Your task to perform on an android device: Show me the alarms in the clock app Image 0: 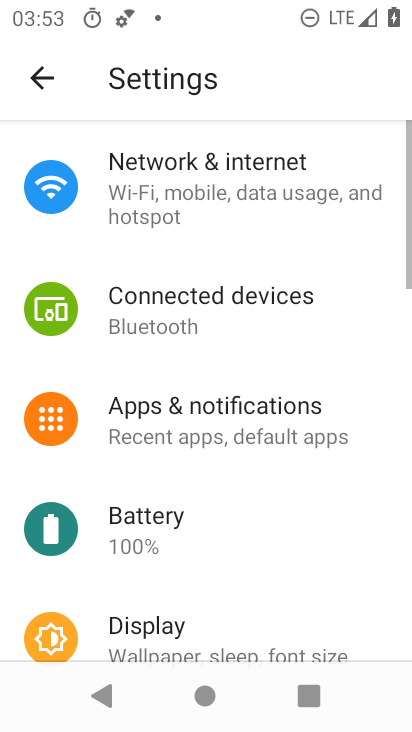
Step 0: press home button
Your task to perform on an android device: Show me the alarms in the clock app Image 1: 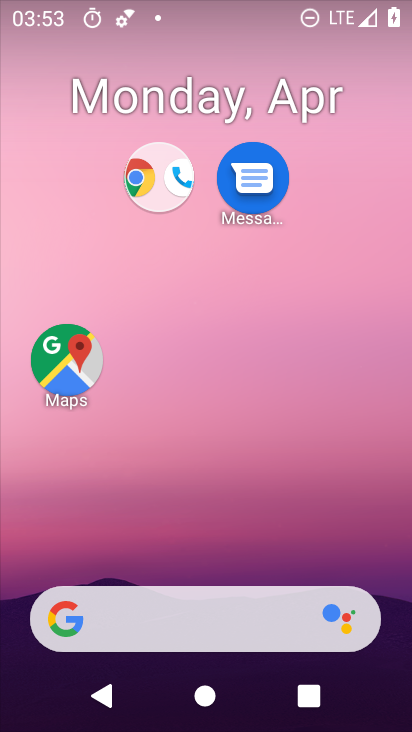
Step 1: drag from (313, 578) to (334, 0)
Your task to perform on an android device: Show me the alarms in the clock app Image 2: 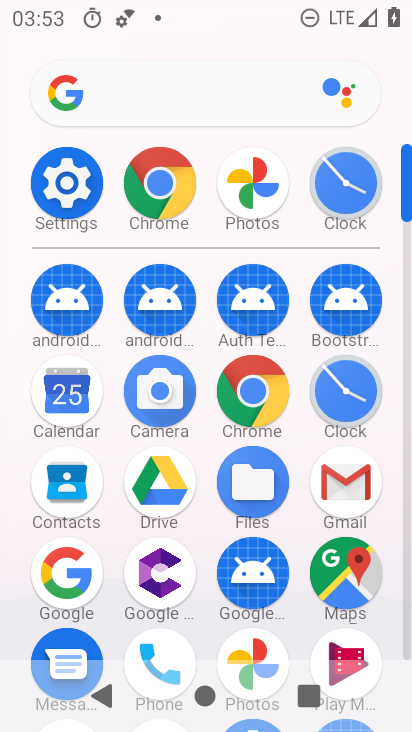
Step 2: click (360, 399)
Your task to perform on an android device: Show me the alarms in the clock app Image 3: 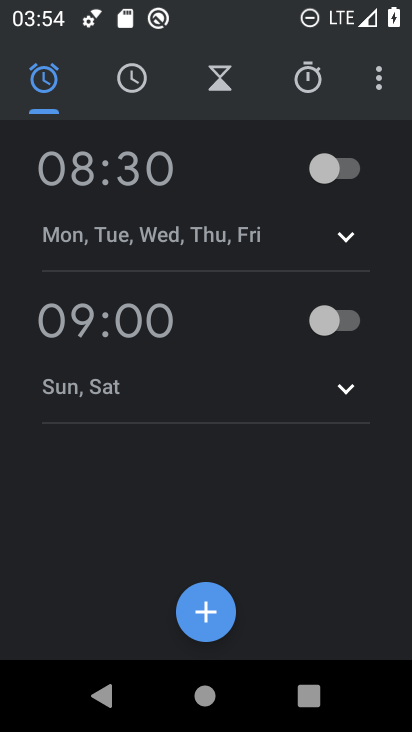
Step 3: click (352, 169)
Your task to perform on an android device: Show me the alarms in the clock app Image 4: 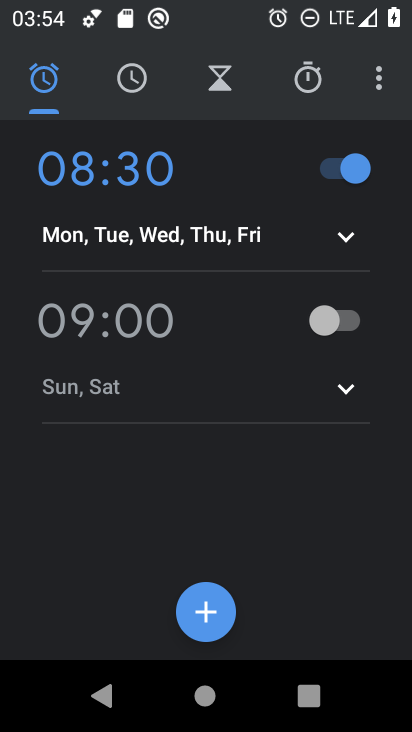
Step 4: task complete